Your task to perform on an android device: set an alarm Image 0: 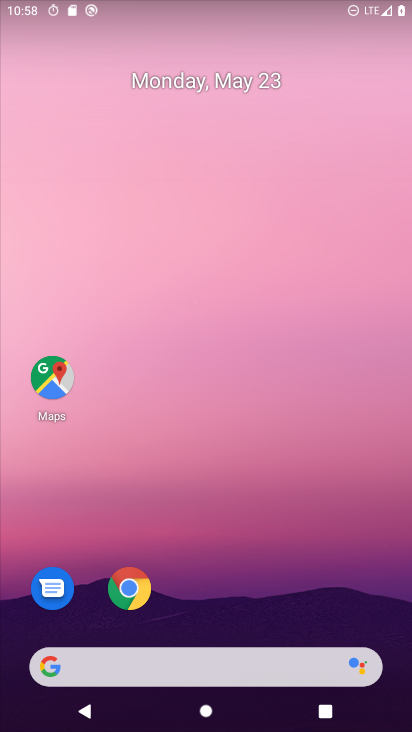
Step 0: drag from (395, 695) to (359, 94)
Your task to perform on an android device: set an alarm Image 1: 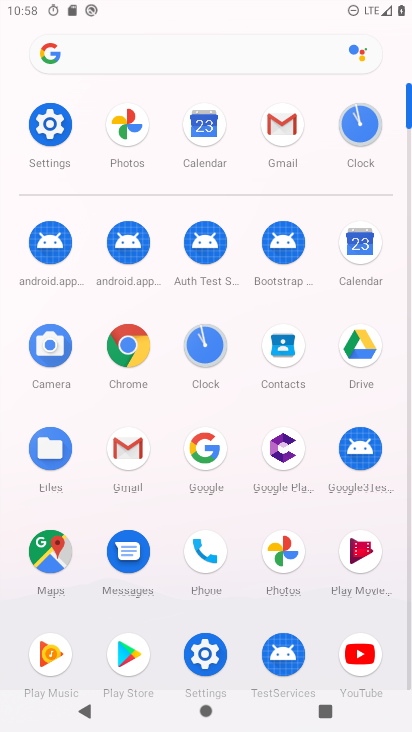
Step 1: click (210, 349)
Your task to perform on an android device: set an alarm Image 2: 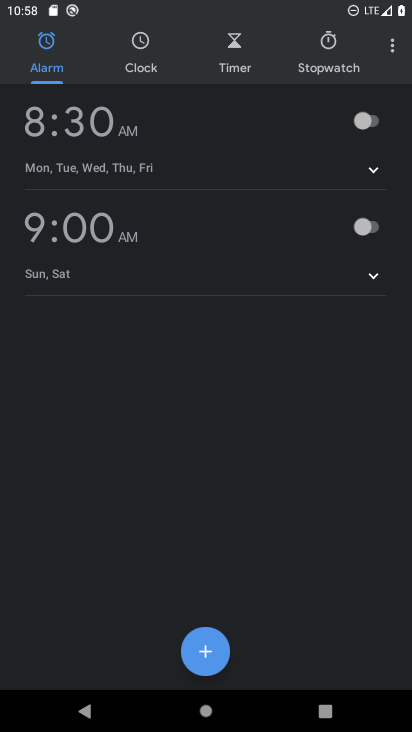
Step 2: click (47, 56)
Your task to perform on an android device: set an alarm Image 3: 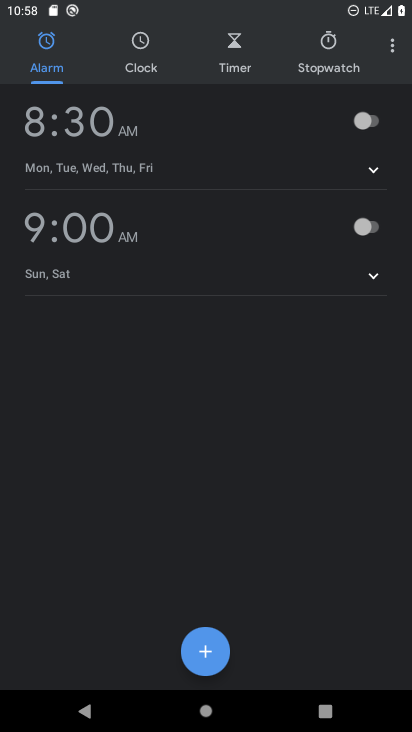
Step 3: click (380, 119)
Your task to perform on an android device: set an alarm Image 4: 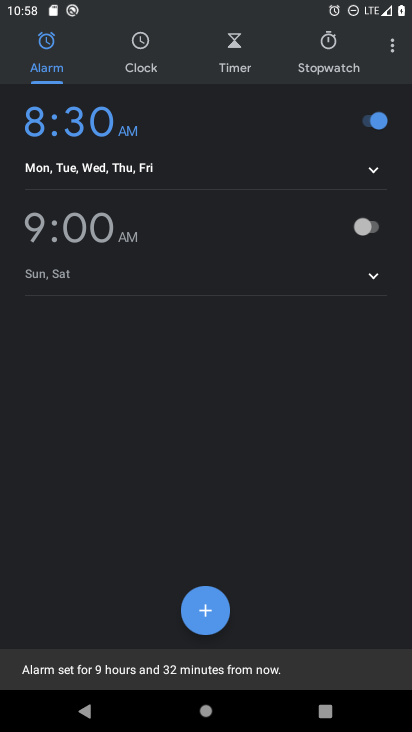
Step 4: task complete